Your task to perform on an android device: Go to Maps Image 0: 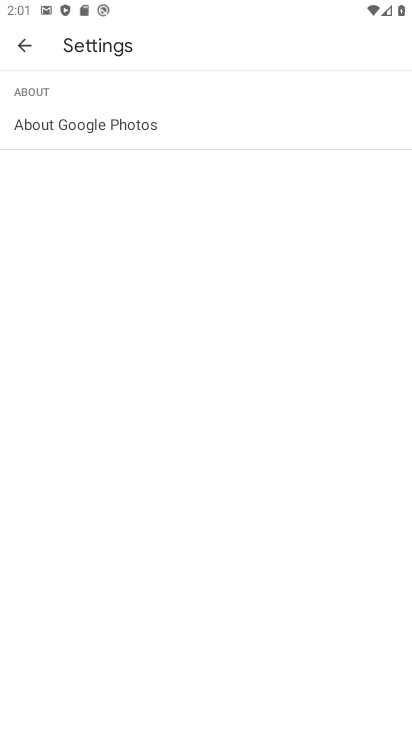
Step 0: press home button
Your task to perform on an android device: Go to Maps Image 1: 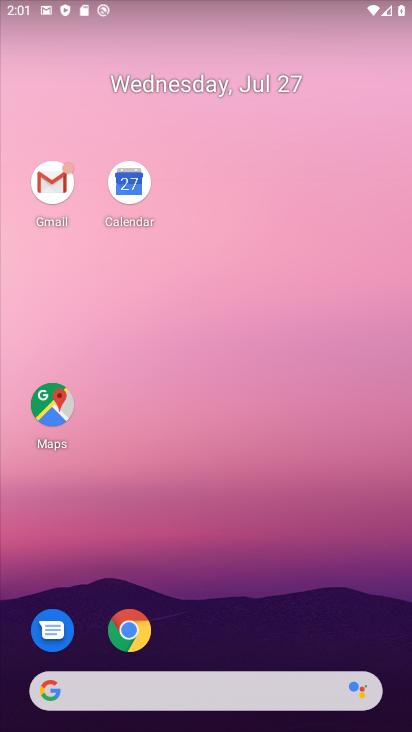
Step 1: click (42, 397)
Your task to perform on an android device: Go to Maps Image 2: 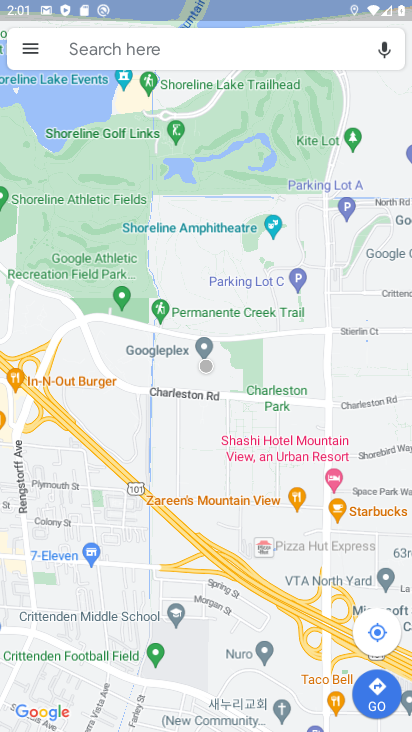
Step 2: task complete